Your task to perform on an android device: turn on the 12-hour format for clock Image 0: 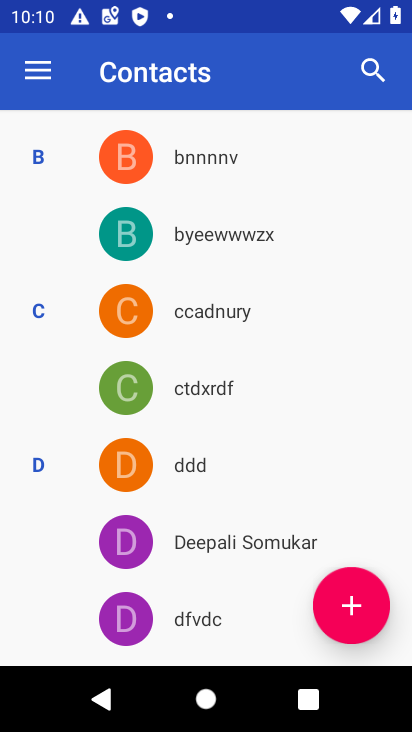
Step 0: press back button
Your task to perform on an android device: turn on the 12-hour format for clock Image 1: 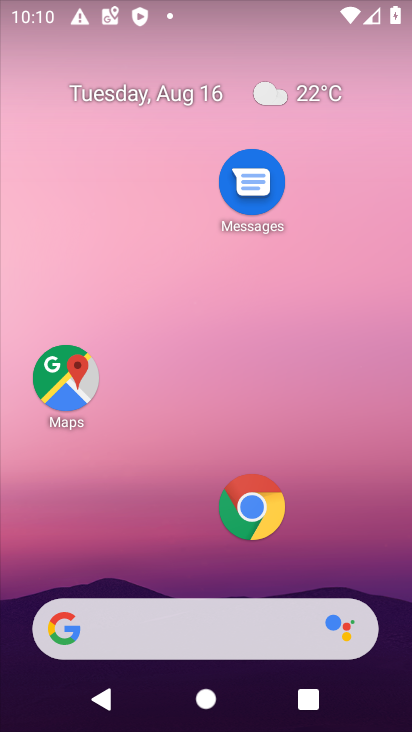
Step 1: drag from (184, 545) to (248, 0)
Your task to perform on an android device: turn on the 12-hour format for clock Image 2: 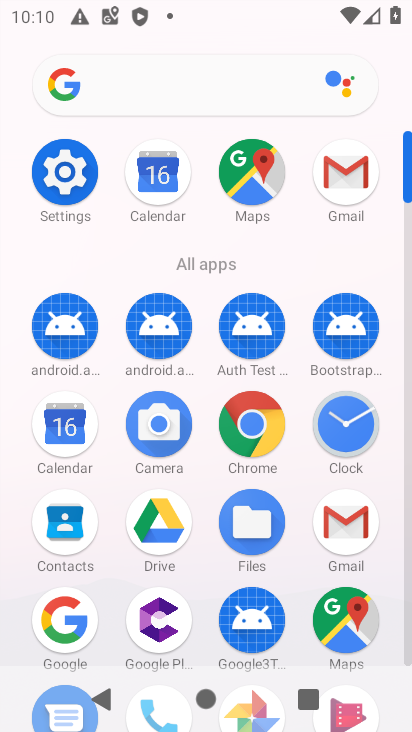
Step 2: click (350, 421)
Your task to perform on an android device: turn on the 12-hour format for clock Image 3: 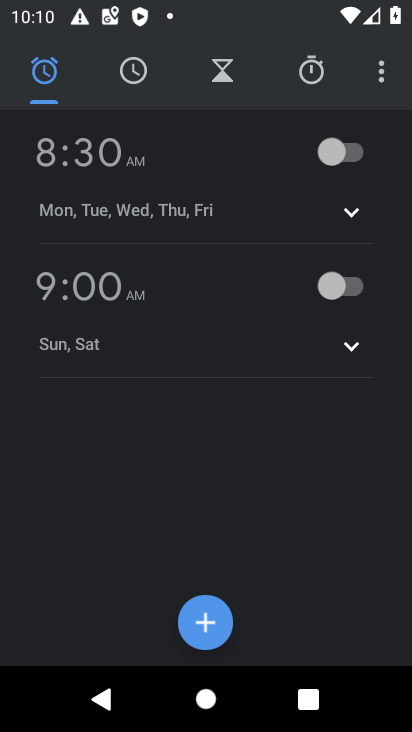
Step 3: click (379, 73)
Your task to perform on an android device: turn on the 12-hour format for clock Image 4: 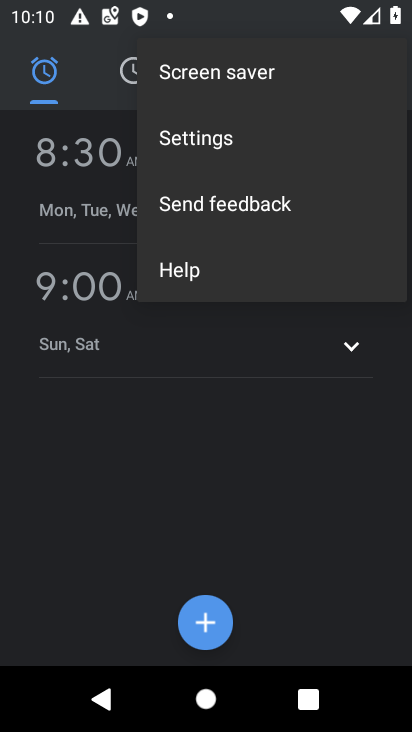
Step 4: click (240, 137)
Your task to perform on an android device: turn on the 12-hour format for clock Image 5: 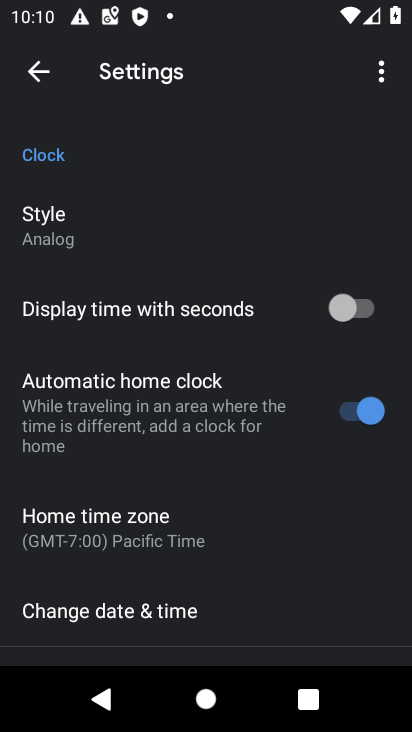
Step 5: drag from (155, 601) to (231, 316)
Your task to perform on an android device: turn on the 12-hour format for clock Image 6: 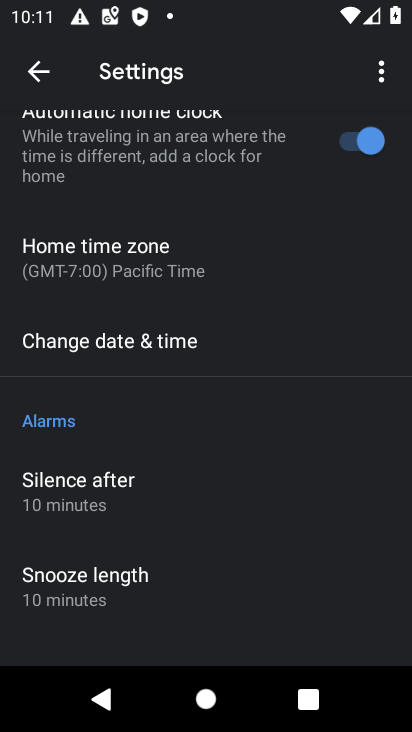
Step 6: click (185, 338)
Your task to perform on an android device: turn on the 12-hour format for clock Image 7: 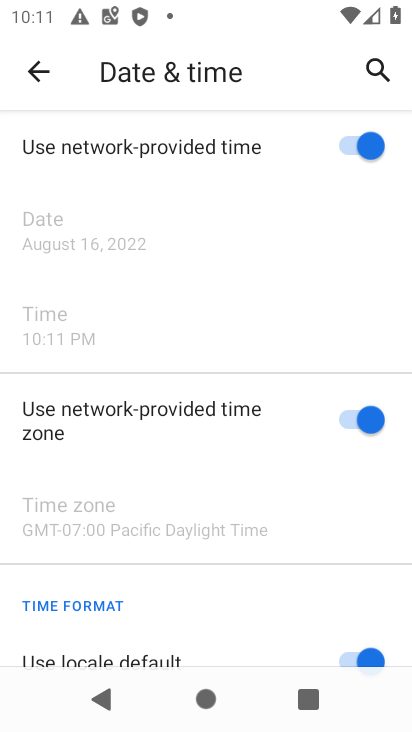
Step 7: task complete